Your task to perform on an android device: turn smart compose on in the gmail app Image 0: 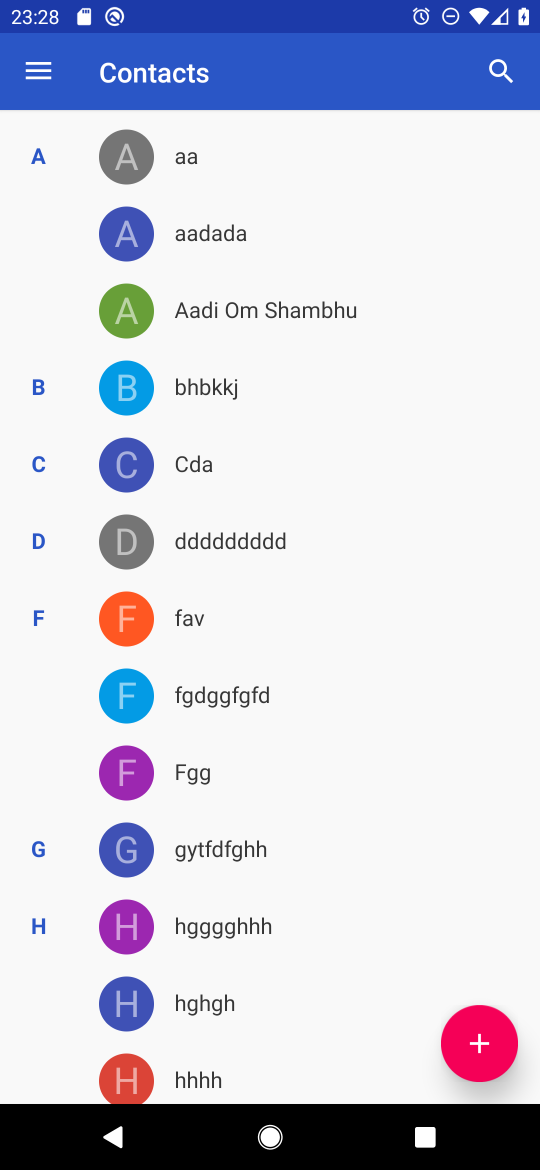
Step 0: press home button
Your task to perform on an android device: turn smart compose on in the gmail app Image 1: 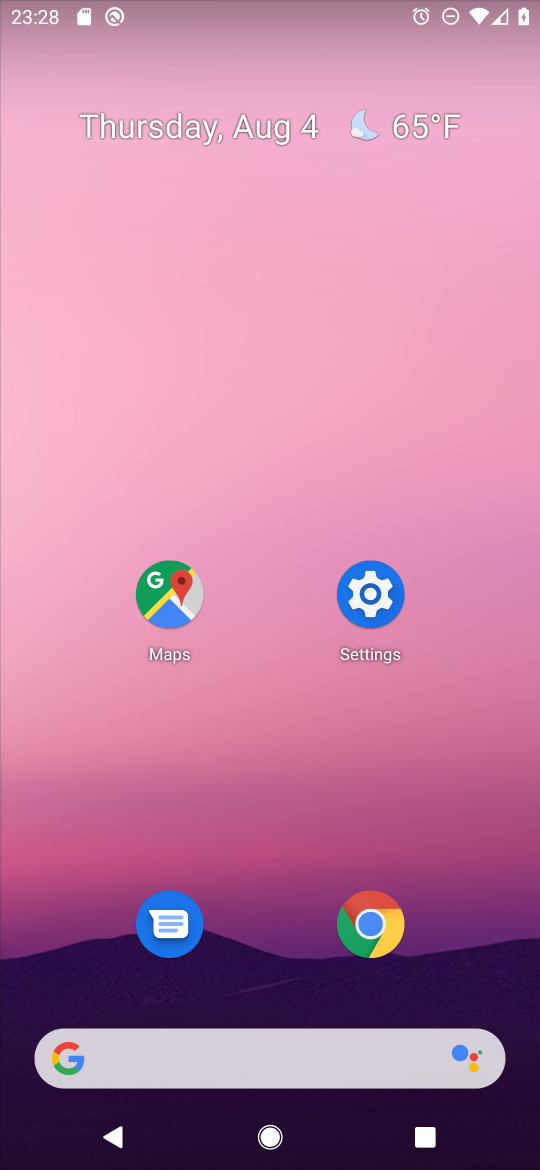
Step 1: drag from (306, 1062) to (447, 189)
Your task to perform on an android device: turn smart compose on in the gmail app Image 2: 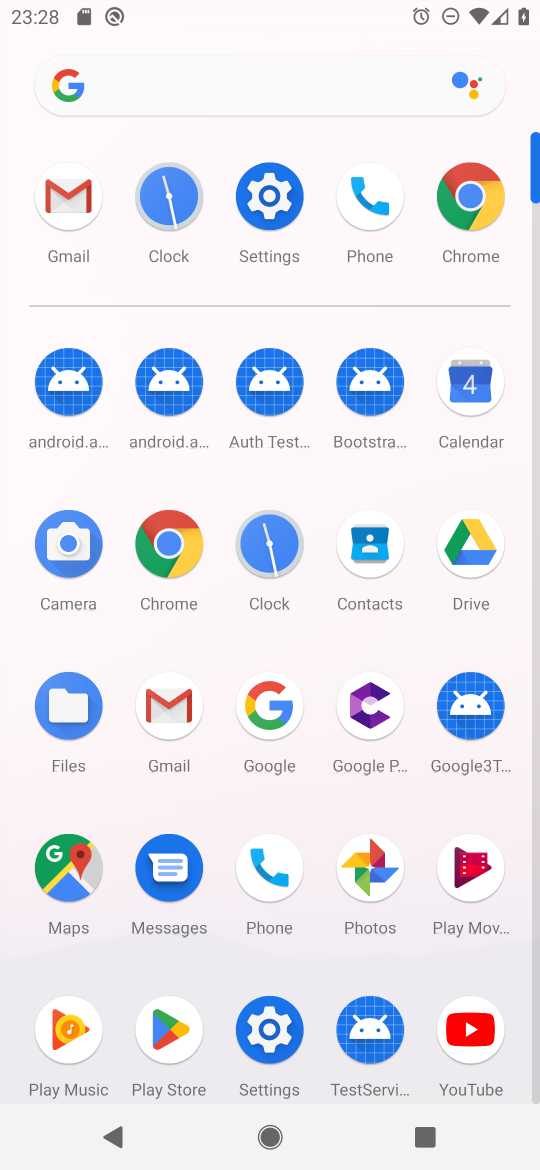
Step 2: click (75, 200)
Your task to perform on an android device: turn smart compose on in the gmail app Image 3: 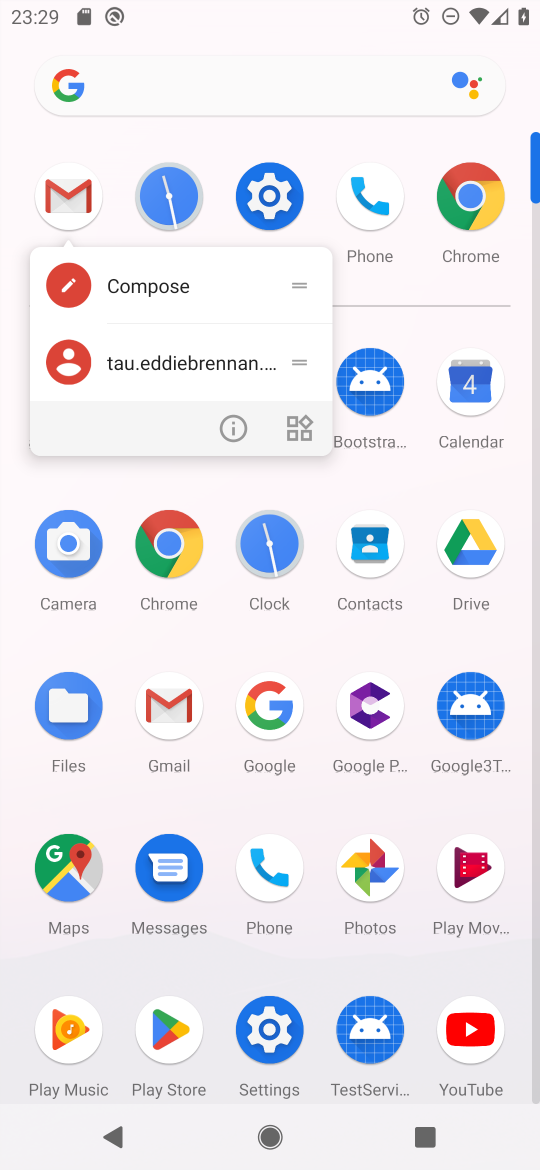
Step 3: click (75, 195)
Your task to perform on an android device: turn smart compose on in the gmail app Image 4: 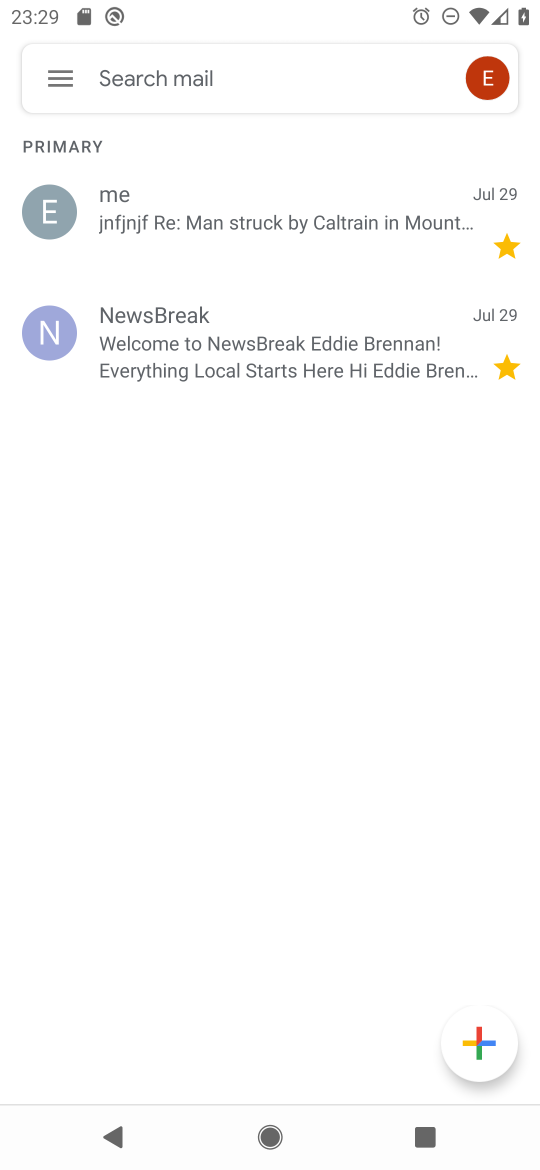
Step 4: click (54, 72)
Your task to perform on an android device: turn smart compose on in the gmail app Image 5: 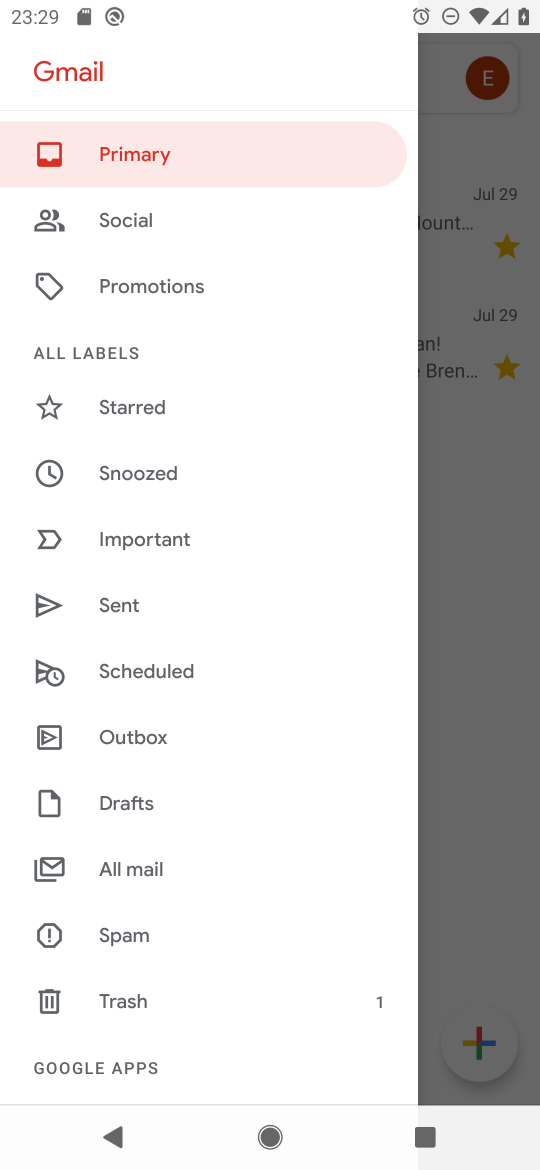
Step 5: drag from (196, 1004) to (366, 111)
Your task to perform on an android device: turn smart compose on in the gmail app Image 6: 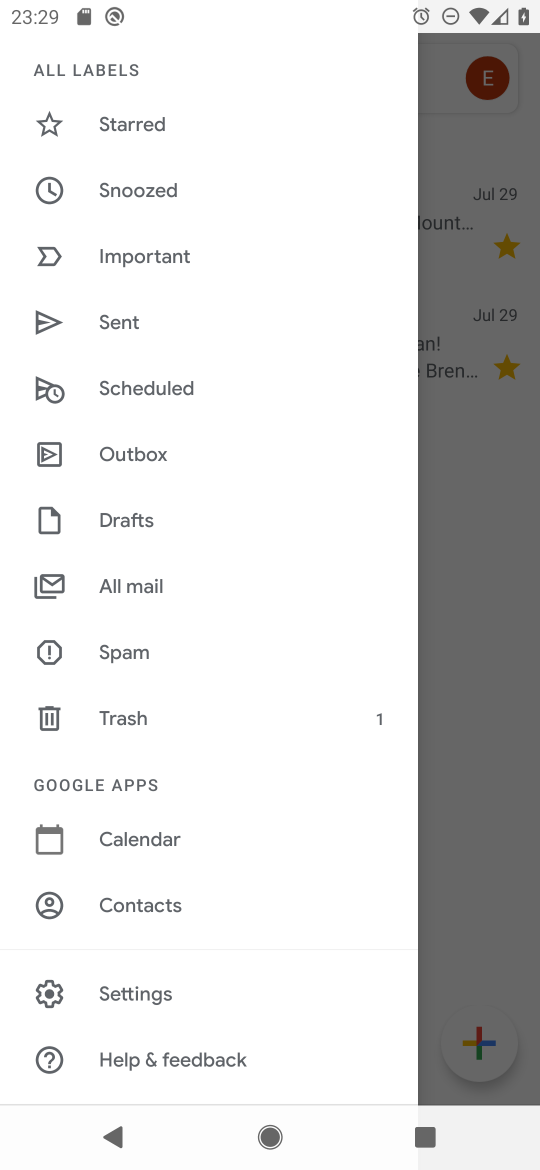
Step 6: click (122, 999)
Your task to perform on an android device: turn smart compose on in the gmail app Image 7: 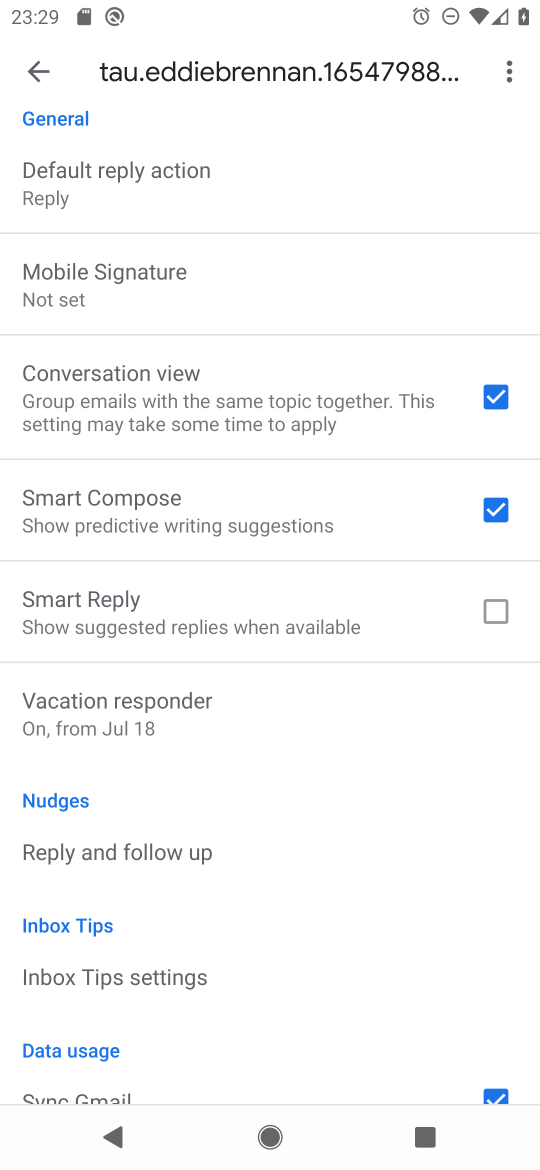
Step 7: task complete